Your task to perform on an android device: turn off airplane mode Image 0: 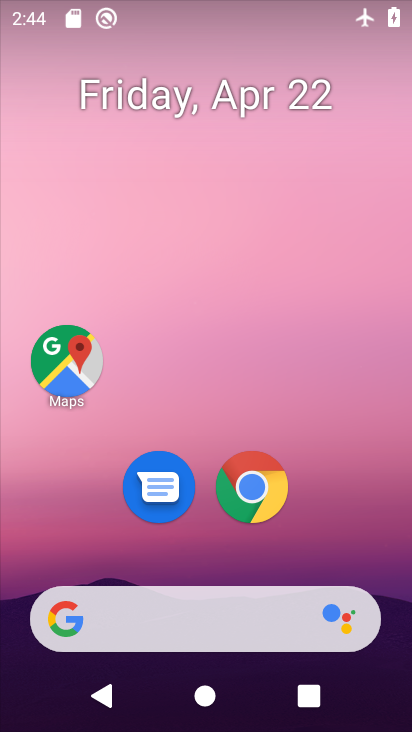
Step 0: drag from (199, 488) to (225, 191)
Your task to perform on an android device: turn off airplane mode Image 1: 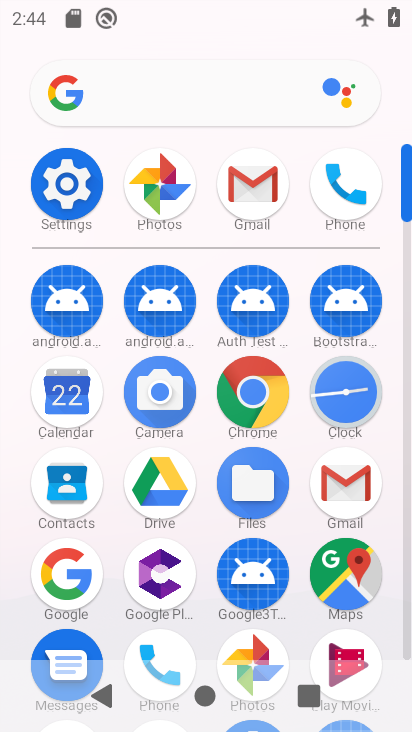
Step 1: click (76, 199)
Your task to perform on an android device: turn off airplane mode Image 2: 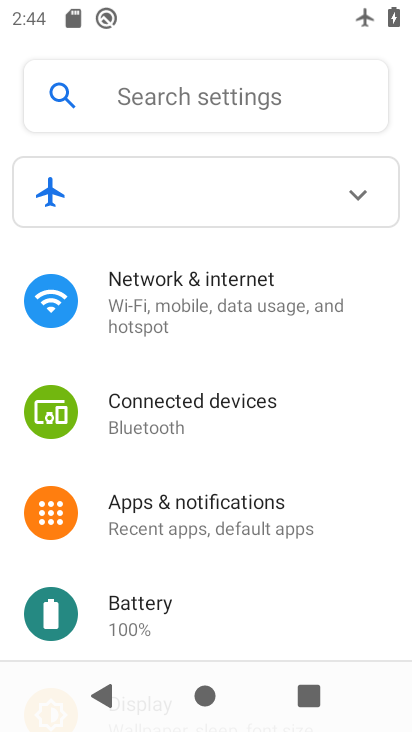
Step 2: click (281, 210)
Your task to perform on an android device: turn off airplane mode Image 3: 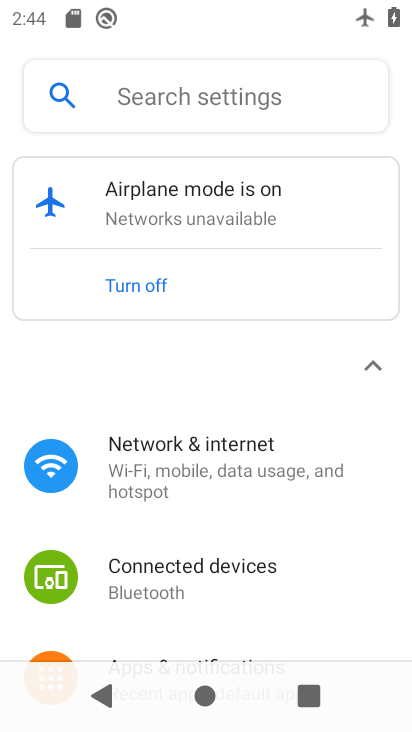
Step 3: click (129, 300)
Your task to perform on an android device: turn off airplane mode Image 4: 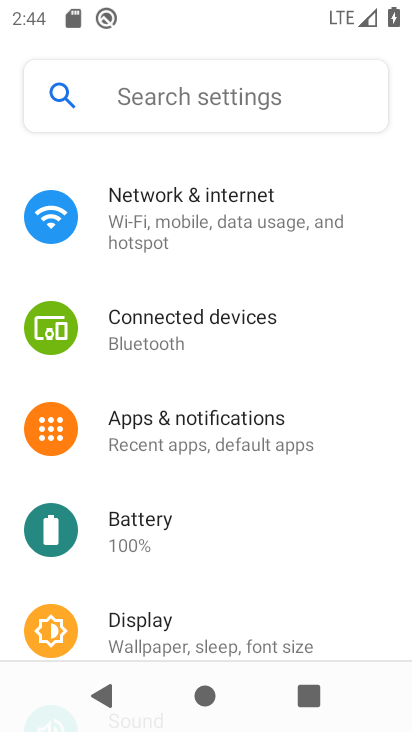
Step 4: task complete